Your task to perform on an android device: Set the phone to "Do not disturb". Image 0: 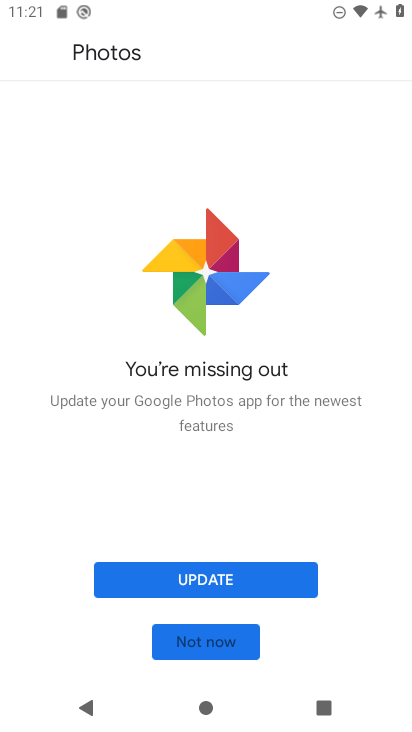
Step 0: press home button
Your task to perform on an android device: Set the phone to "Do not disturb". Image 1: 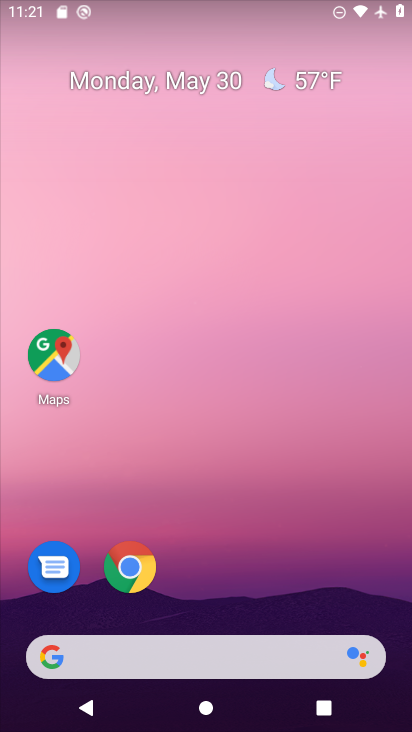
Step 1: drag from (217, 572) to (213, 144)
Your task to perform on an android device: Set the phone to "Do not disturb". Image 2: 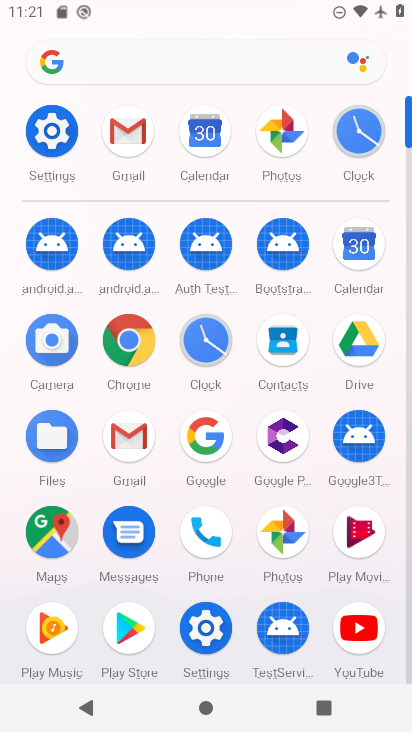
Step 2: click (59, 115)
Your task to perform on an android device: Set the phone to "Do not disturb". Image 3: 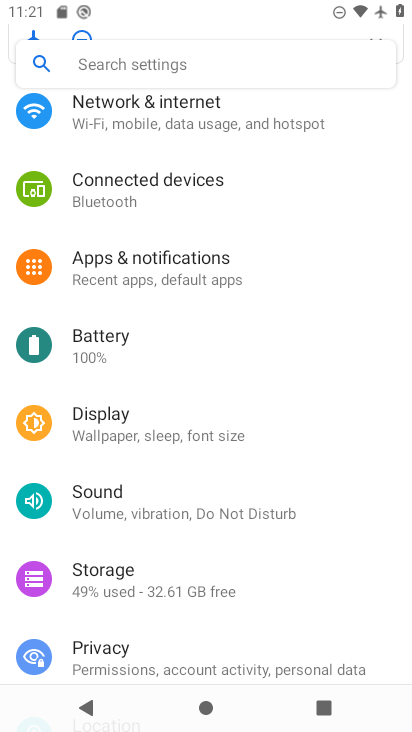
Step 3: click (144, 478)
Your task to perform on an android device: Set the phone to "Do not disturb". Image 4: 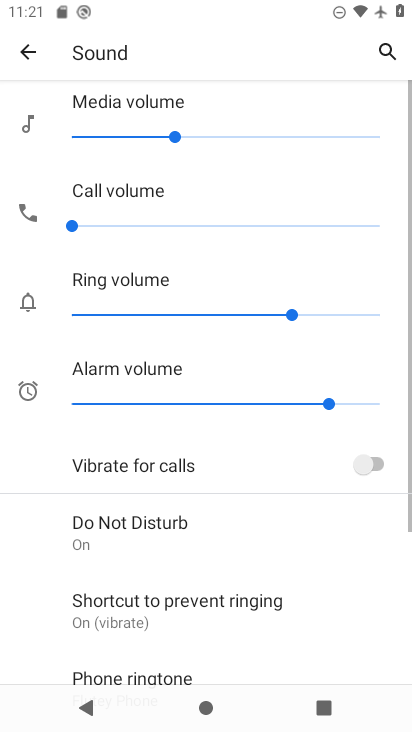
Step 4: drag from (92, 679) to (138, 450)
Your task to perform on an android device: Set the phone to "Do not disturb". Image 5: 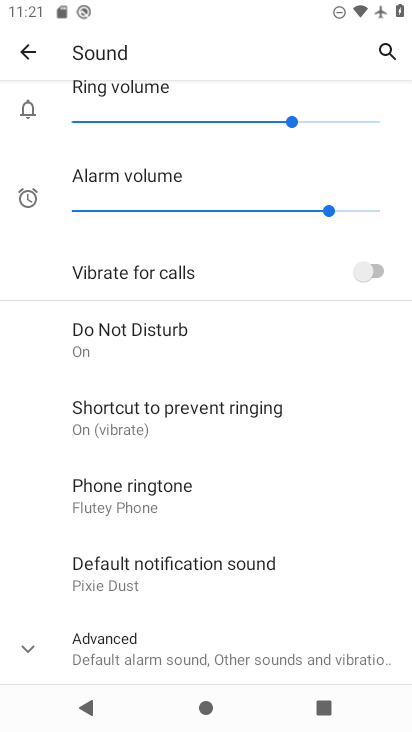
Step 5: click (111, 345)
Your task to perform on an android device: Set the phone to "Do not disturb". Image 6: 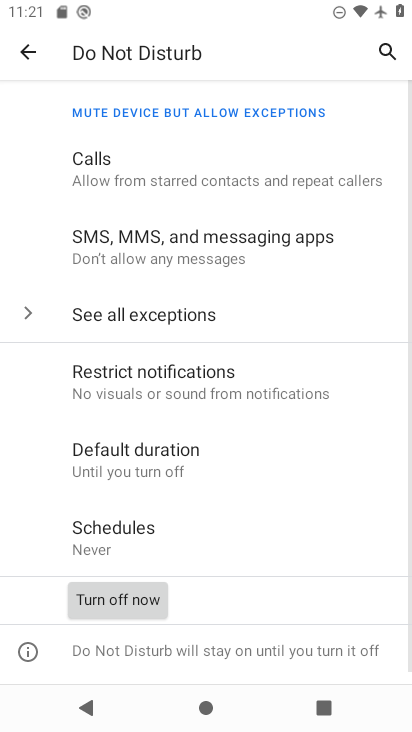
Step 6: task complete